Your task to perform on an android device: What's the weather going to be this weekend? Image 0: 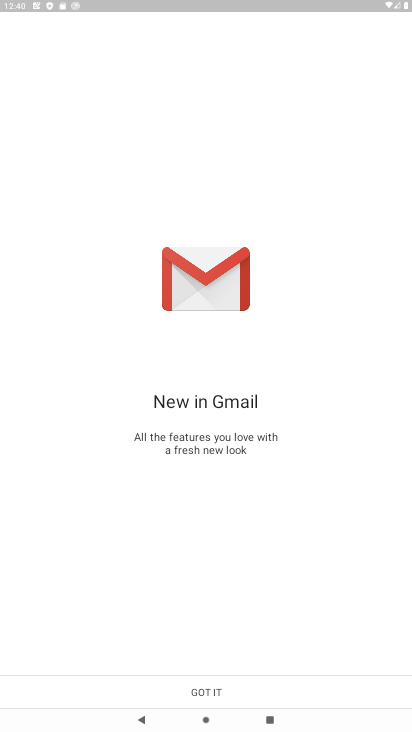
Step 0: press home button
Your task to perform on an android device: What's the weather going to be this weekend? Image 1: 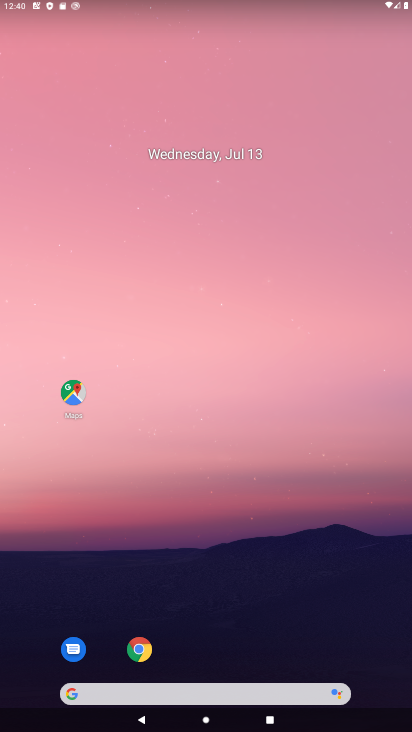
Step 1: drag from (3, 518) to (359, 510)
Your task to perform on an android device: What's the weather going to be this weekend? Image 2: 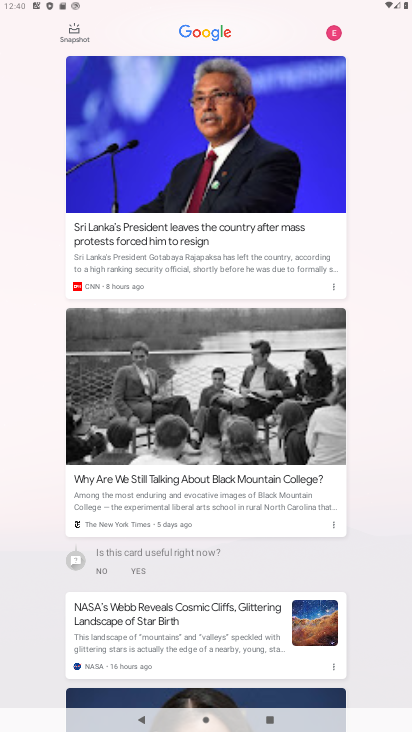
Step 2: press back button
Your task to perform on an android device: What's the weather going to be this weekend? Image 3: 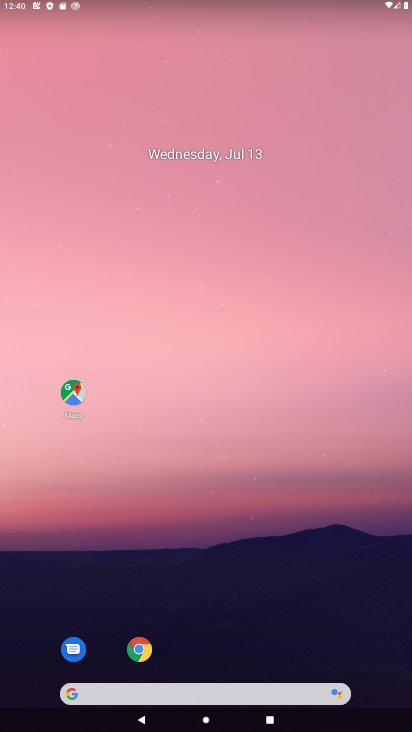
Step 3: click (164, 690)
Your task to perform on an android device: What's the weather going to be this weekend? Image 4: 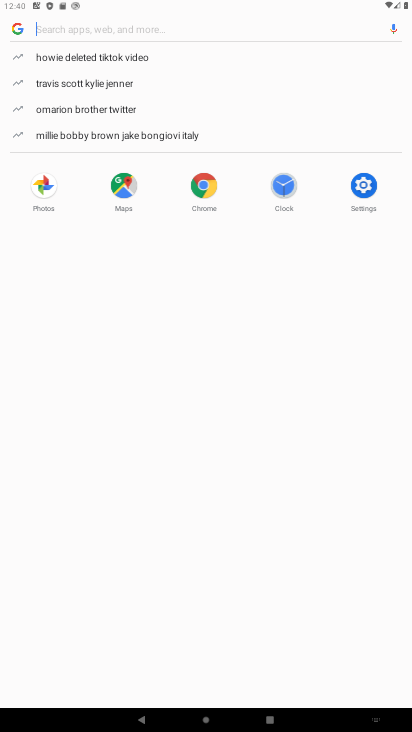
Step 4: type "weather for weekend"
Your task to perform on an android device: What's the weather going to be this weekend? Image 5: 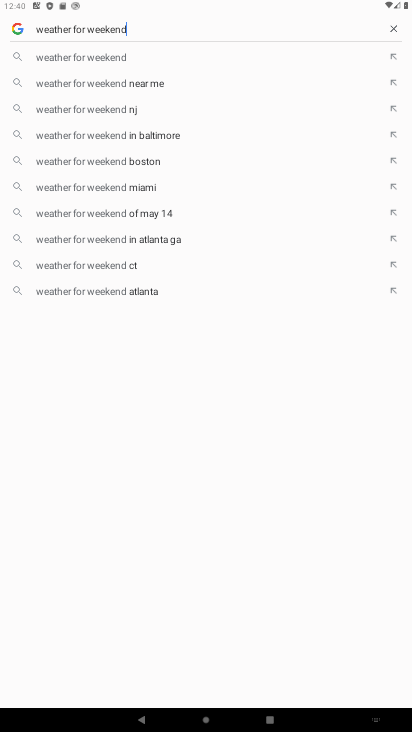
Step 5: click (121, 57)
Your task to perform on an android device: What's the weather going to be this weekend? Image 6: 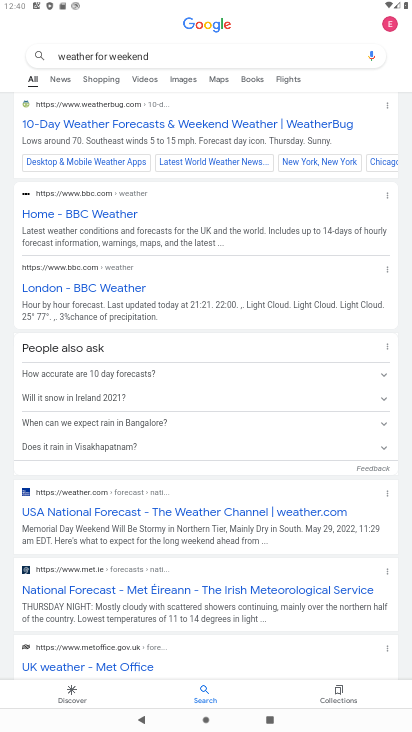
Step 6: click (157, 131)
Your task to perform on an android device: What's the weather going to be this weekend? Image 7: 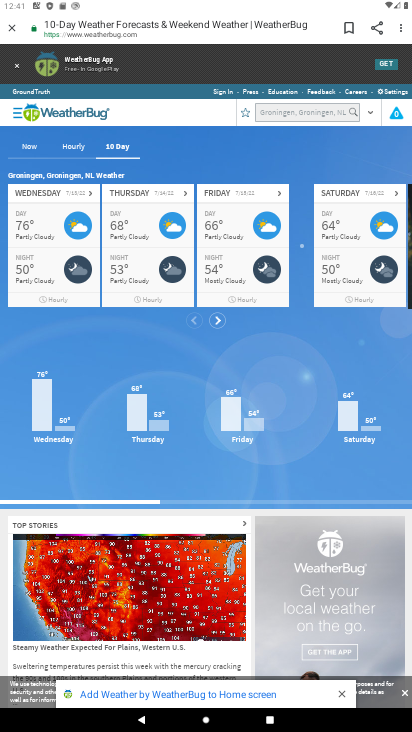
Step 7: task complete